Your task to perform on an android device: Go to sound settings Image 0: 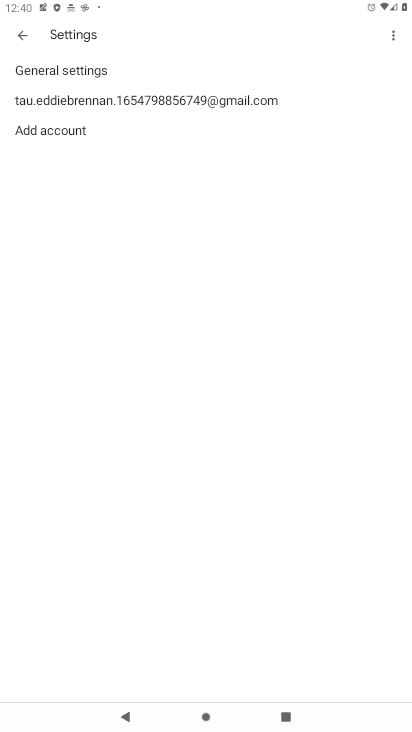
Step 0: press home button
Your task to perform on an android device: Go to sound settings Image 1: 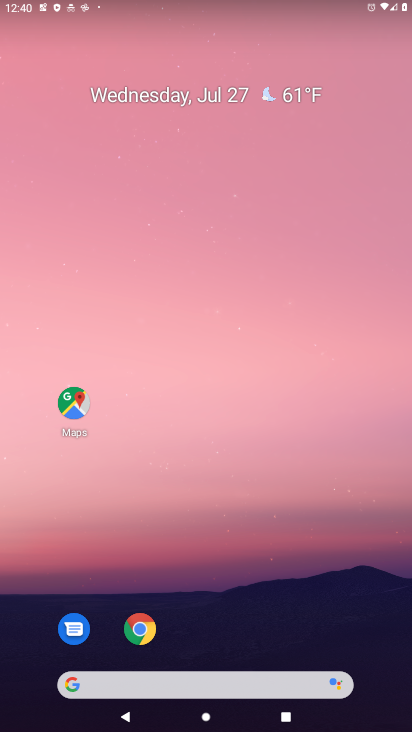
Step 1: drag from (247, 657) to (253, 307)
Your task to perform on an android device: Go to sound settings Image 2: 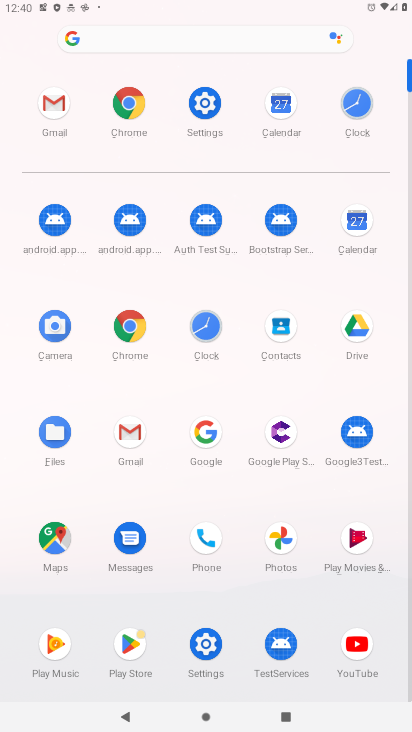
Step 2: click (196, 642)
Your task to perform on an android device: Go to sound settings Image 3: 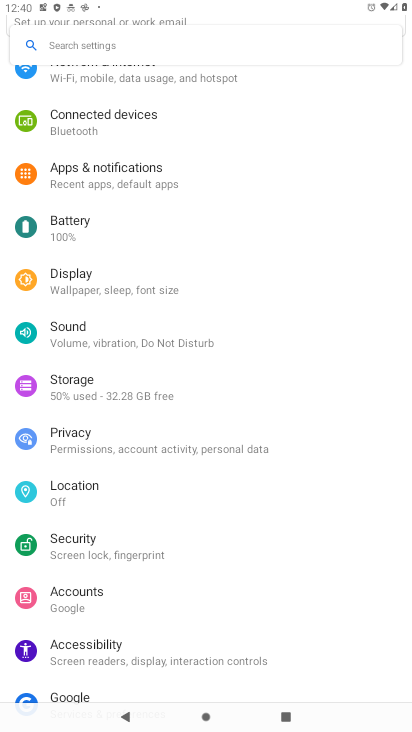
Step 3: click (124, 328)
Your task to perform on an android device: Go to sound settings Image 4: 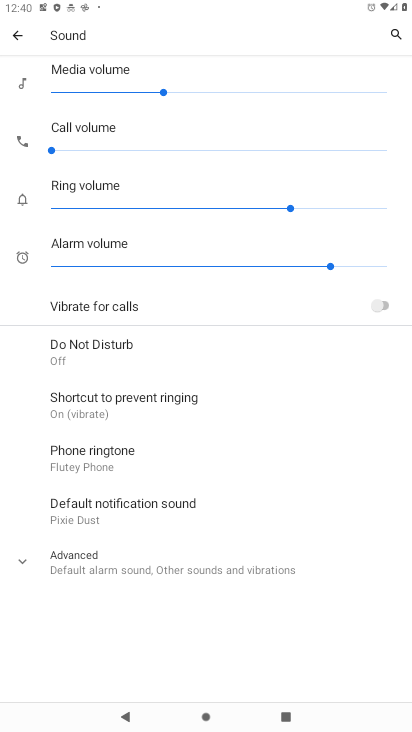
Step 4: task complete